Your task to perform on an android device: Open Wikipedia Image 0: 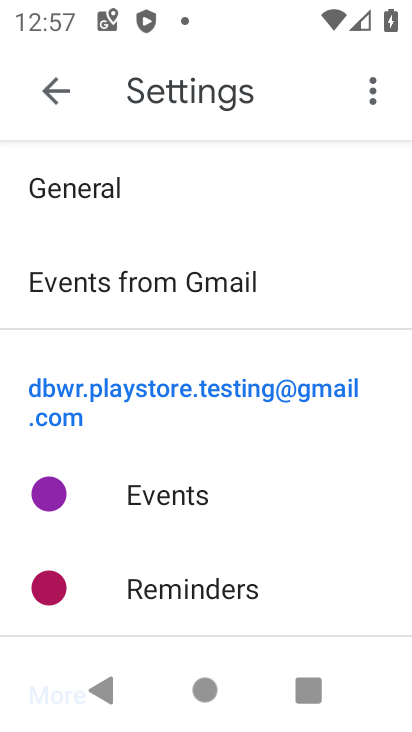
Step 0: press home button
Your task to perform on an android device: Open Wikipedia Image 1: 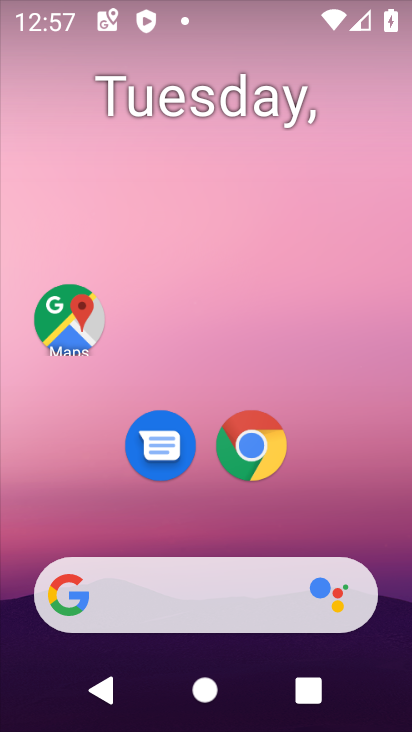
Step 1: click (220, 481)
Your task to perform on an android device: Open Wikipedia Image 2: 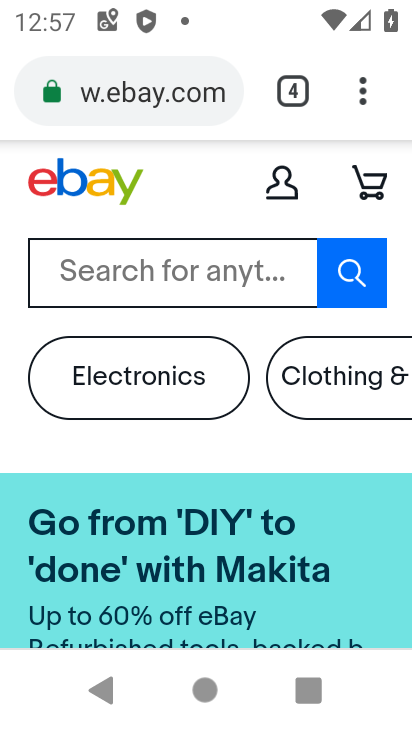
Step 2: click (190, 105)
Your task to perform on an android device: Open Wikipedia Image 3: 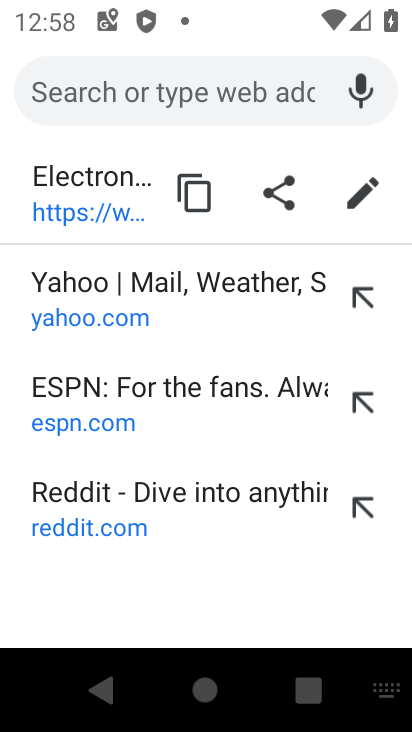
Step 3: type "wikipedia"
Your task to perform on an android device: Open Wikipedia Image 4: 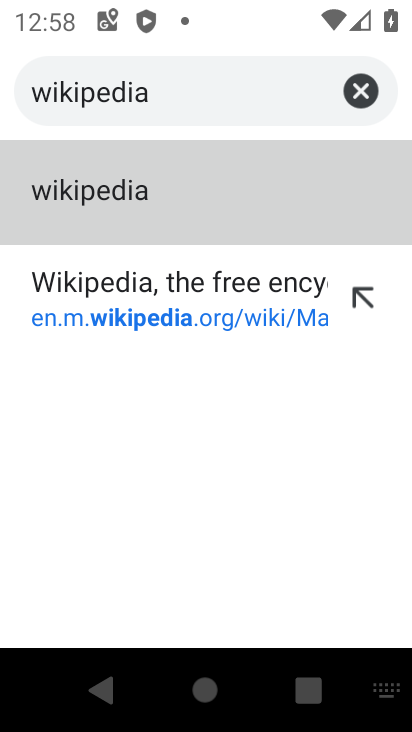
Step 4: click (83, 207)
Your task to perform on an android device: Open Wikipedia Image 5: 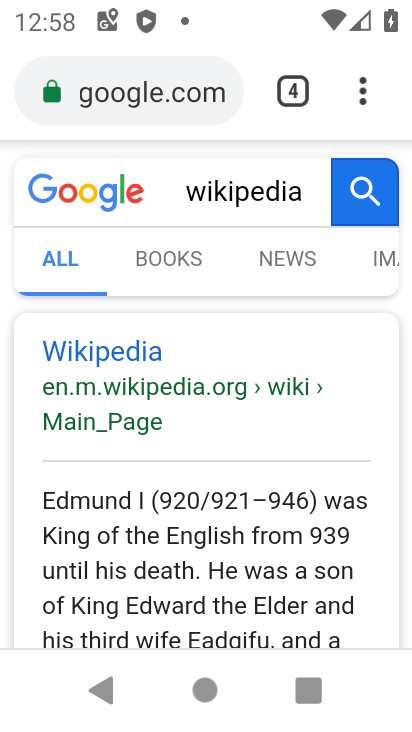
Step 5: click (109, 354)
Your task to perform on an android device: Open Wikipedia Image 6: 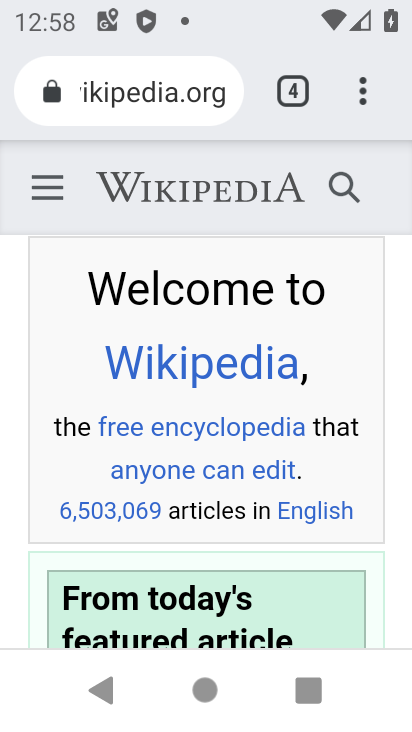
Step 6: task complete